Your task to perform on an android device: toggle airplane mode Image 0: 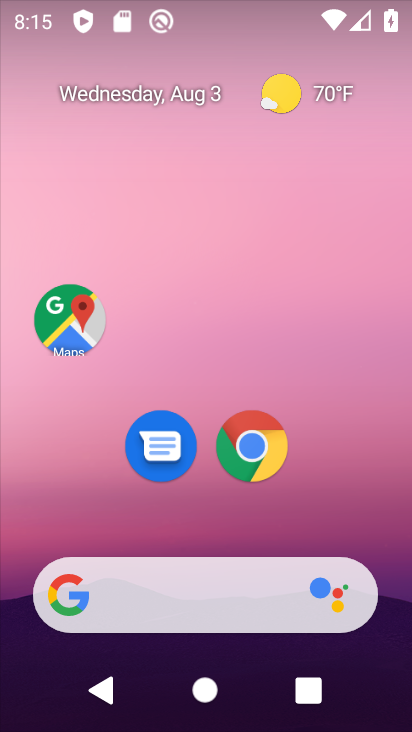
Step 0: drag from (393, 716) to (335, 143)
Your task to perform on an android device: toggle airplane mode Image 1: 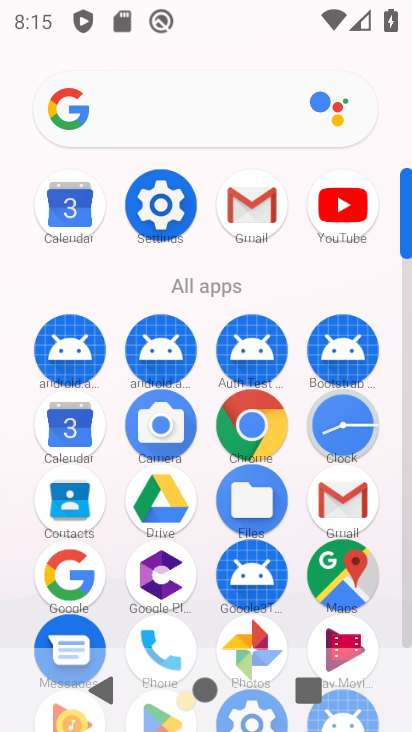
Step 1: click (162, 208)
Your task to perform on an android device: toggle airplane mode Image 2: 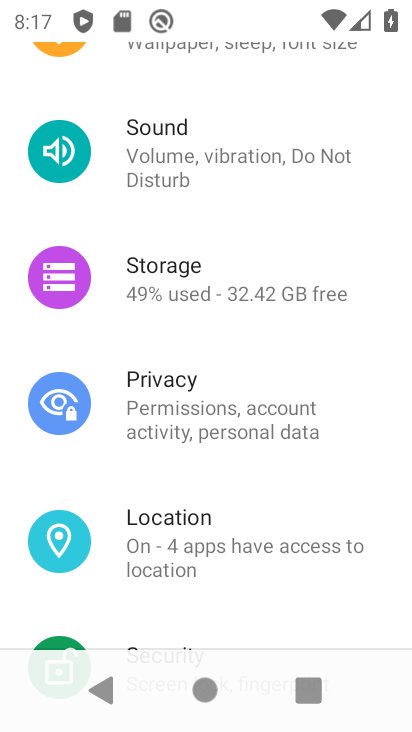
Step 2: drag from (280, 108) to (260, 631)
Your task to perform on an android device: toggle airplane mode Image 3: 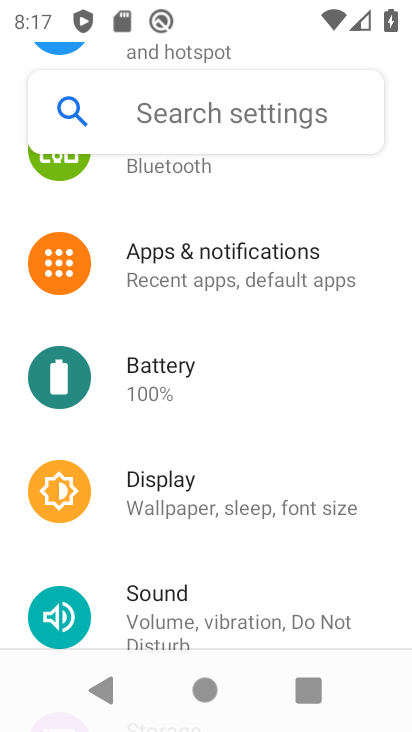
Step 3: drag from (271, 220) to (300, 541)
Your task to perform on an android device: toggle airplane mode Image 4: 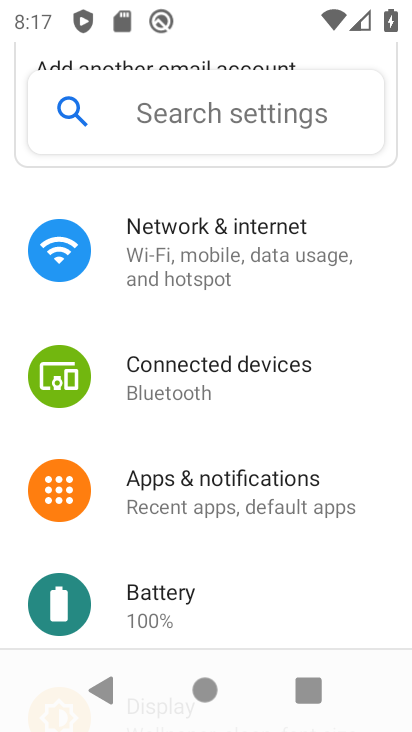
Step 4: click (223, 252)
Your task to perform on an android device: toggle airplane mode Image 5: 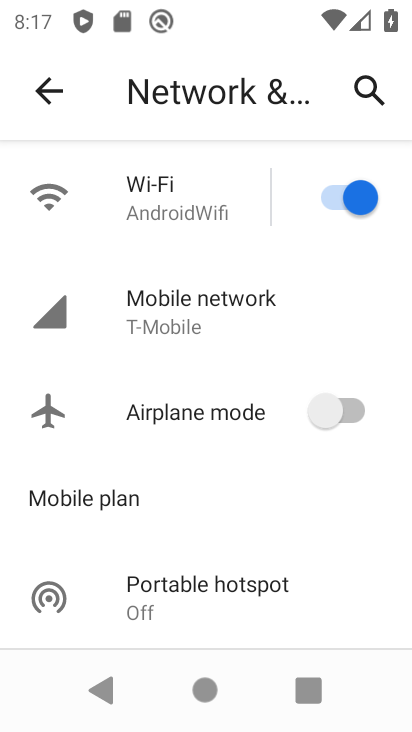
Step 5: click (332, 405)
Your task to perform on an android device: toggle airplane mode Image 6: 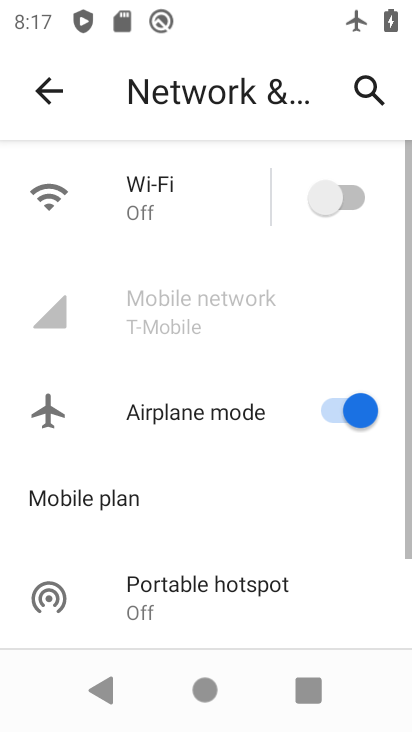
Step 6: task complete